Your task to perform on an android device: install app "Google Docs" Image 0: 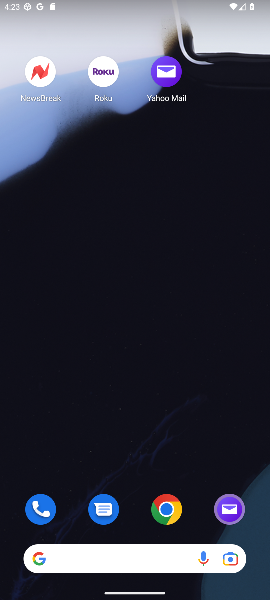
Step 0: drag from (136, 525) to (192, 84)
Your task to perform on an android device: install app "Google Docs" Image 1: 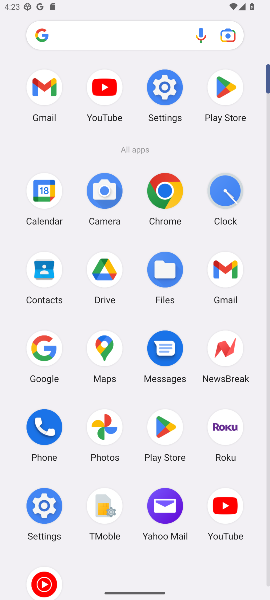
Step 1: click (159, 430)
Your task to perform on an android device: install app "Google Docs" Image 2: 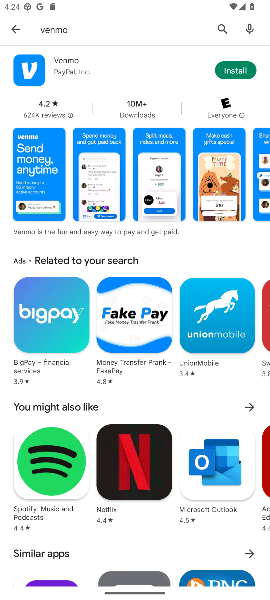
Step 2: click (218, 31)
Your task to perform on an android device: install app "Google Docs" Image 3: 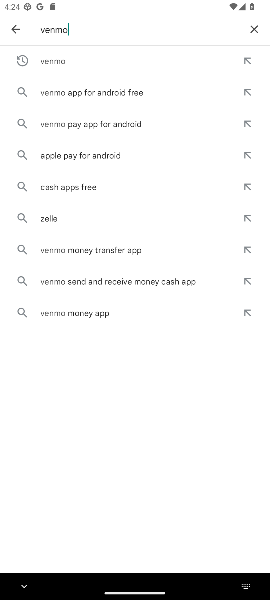
Step 3: click (262, 22)
Your task to perform on an android device: install app "Google Docs" Image 4: 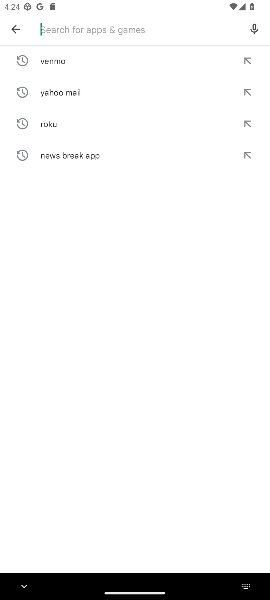
Step 4: click (92, 29)
Your task to perform on an android device: install app "Google Docs" Image 5: 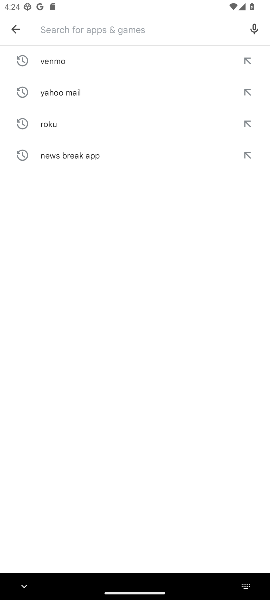
Step 5: click (63, 29)
Your task to perform on an android device: install app "Google Docs" Image 6: 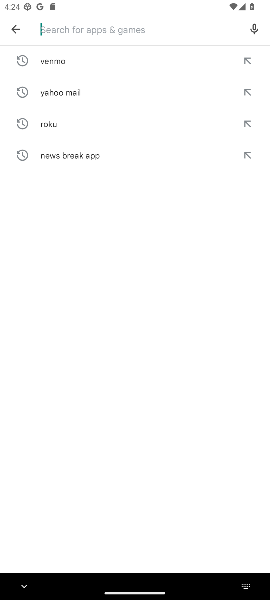
Step 6: type "Google Docs"
Your task to perform on an android device: install app "Google Docs" Image 7: 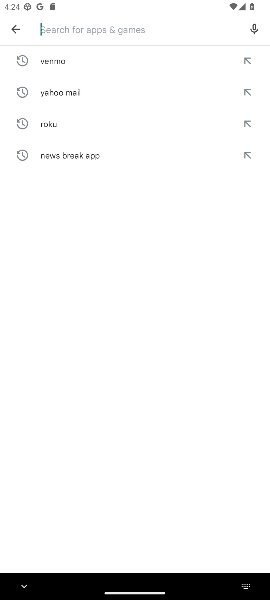
Step 7: click (171, 309)
Your task to perform on an android device: install app "Google Docs" Image 8: 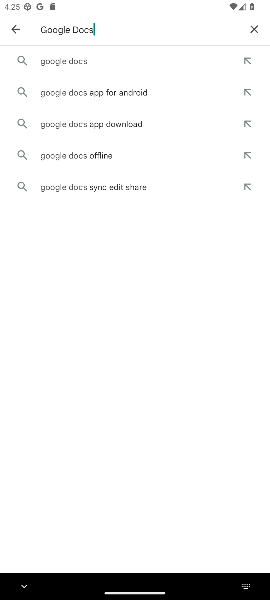
Step 8: click (107, 52)
Your task to perform on an android device: install app "Google Docs" Image 9: 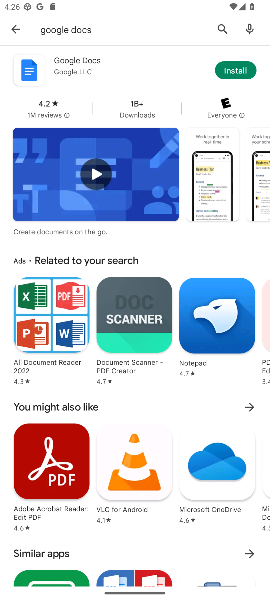
Step 9: click (235, 70)
Your task to perform on an android device: install app "Google Docs" Image 10: 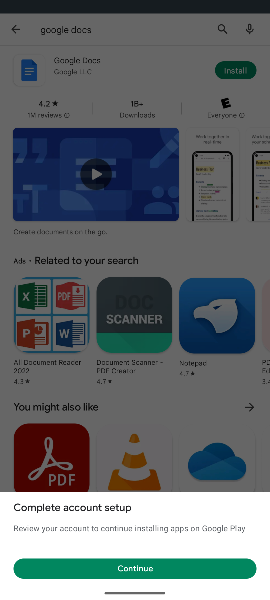
Step 10: click (152, 570)
Your task to perform on an android device: install app "Google Docs" Image 11: 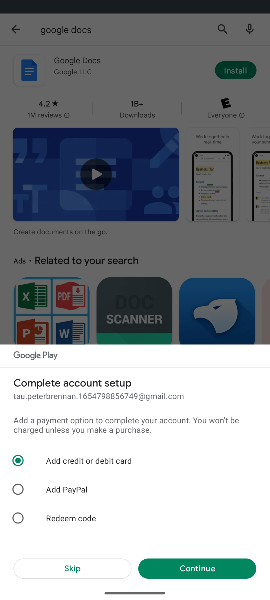
Step 11: click (78, 568)
Your task to perform on an android device: install app "Google Docs" Image 12: 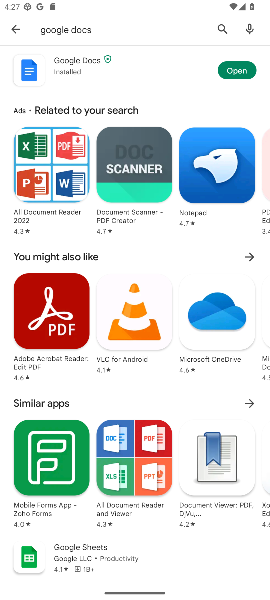
Step 12: task complete